Your task to perform on an android device: toggle improve location accuracy Image 0: 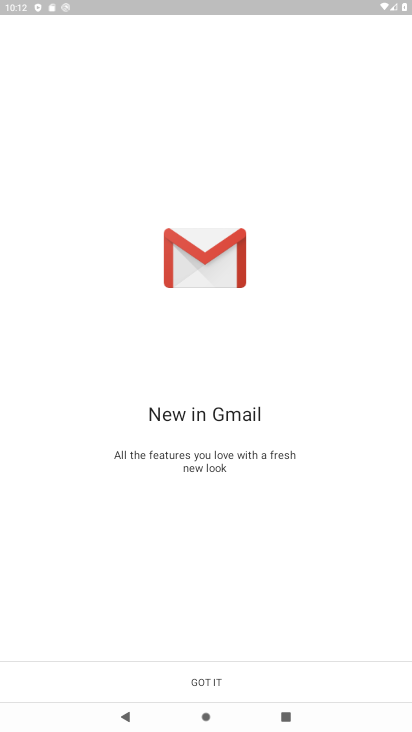
Step 0: press home button
Your task to perform on an android device: toggle improve location accuracy Image 1: 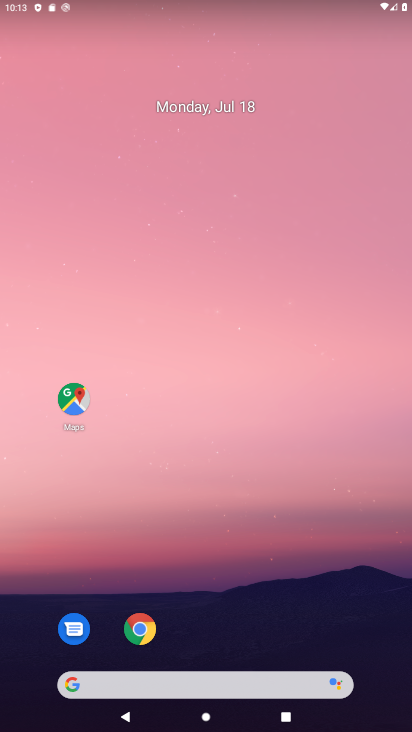
Step 1: drag from (302, 581) to (326, 221)
Your task to perform on an android device: toggle improve location accuracy Image 2: 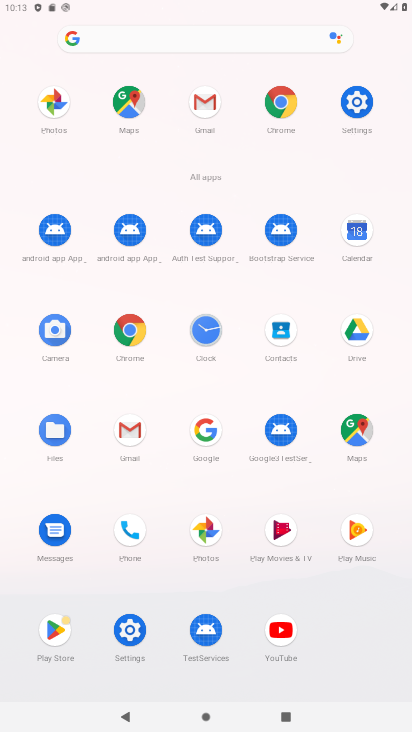
Step 2: click (368, 96)
Your task to perform on an android device: toggle improve location accuracy Image 3: 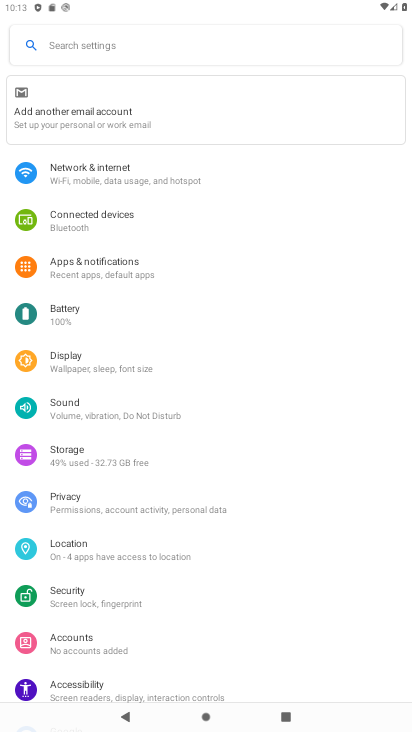
Step 3: click (80, 537)
Your task to perform on an android device: toggle improve location accuracy Image 4: 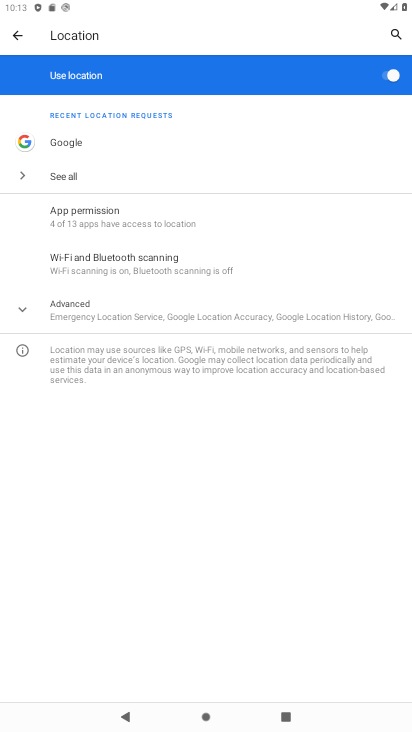
Step 4: click (146, 312)
Your task to perform on an android device: toggle improve location accuracy Image 5: 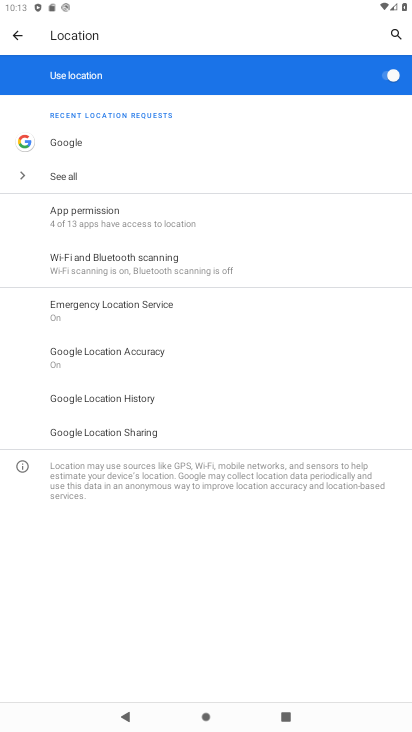
Step 5: click (121, 352)
Your task to perform on an android device: toggle improve location accuracy Image 6: 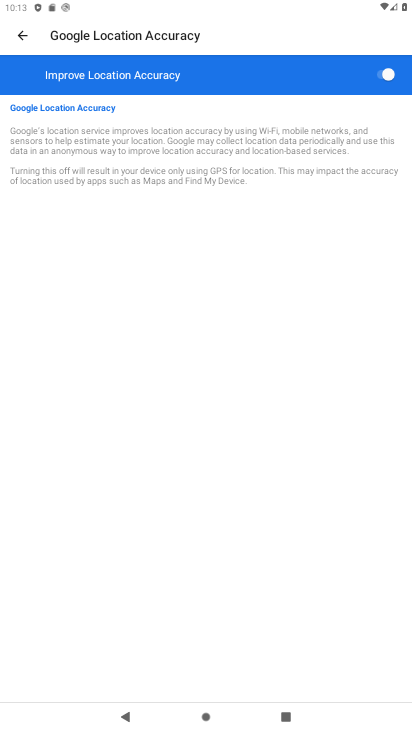
Step 6: click (399, 68)
Your task to perform on an android device: toggle improve location accuracy Image 7: 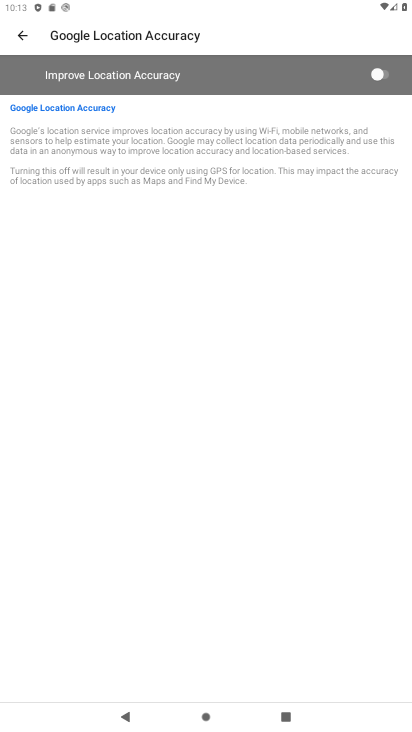
Step 7: task complete